Your task to perform on an android device: toggle pop-ups in chrome Image 0: 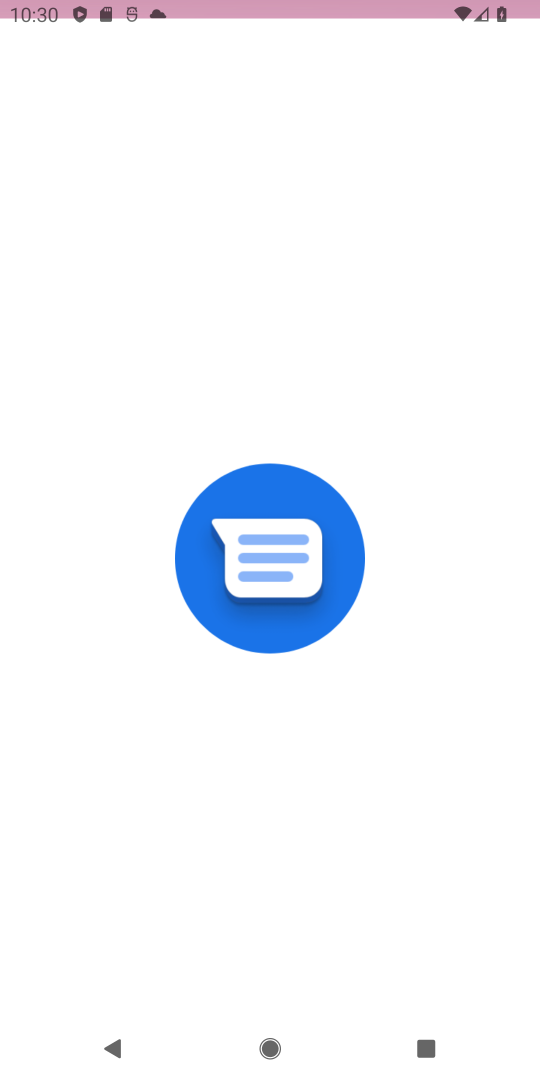
Step 0: press home button
Your task to perform on an android device: toggle pop-ups in chrome Image 1: 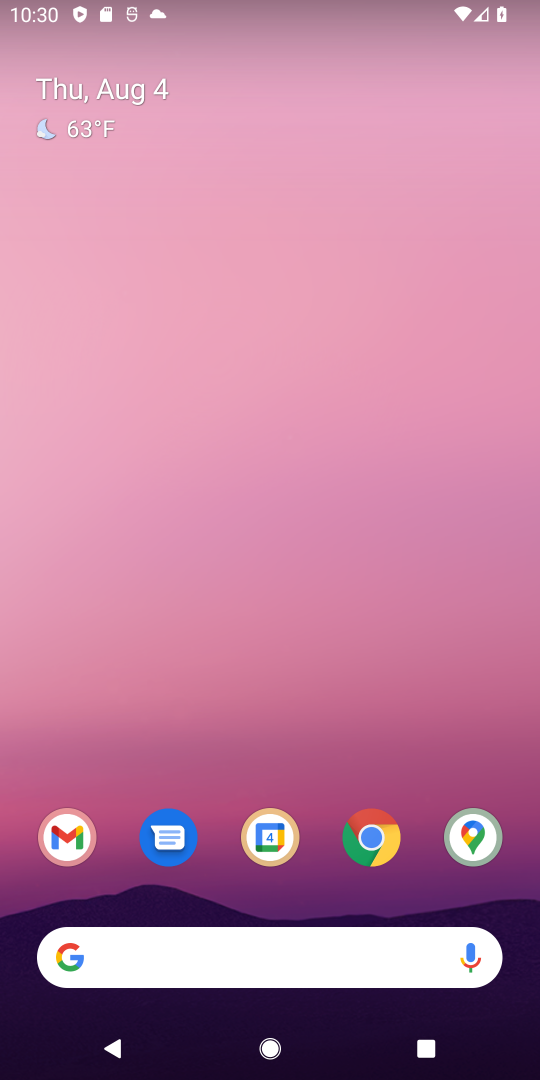
Step 1: drag from (314, 902) to (314, 97)
Your task to perform on an android device: toggle pop-ups in chrome Image 2: 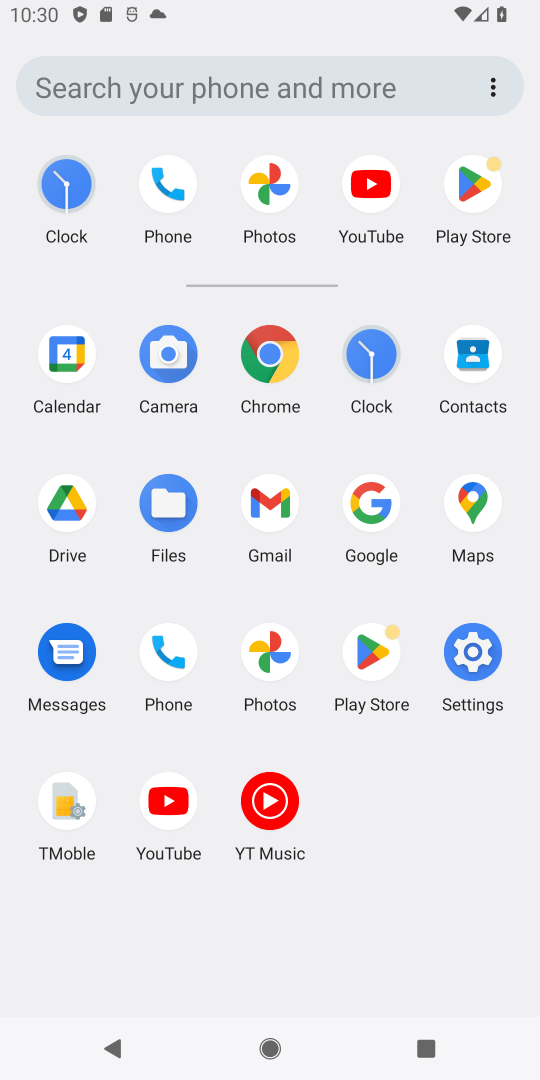
Step 2: click (270, 351)
Your task to perform on an android device: toggle pop-ups in chrome Image 3: 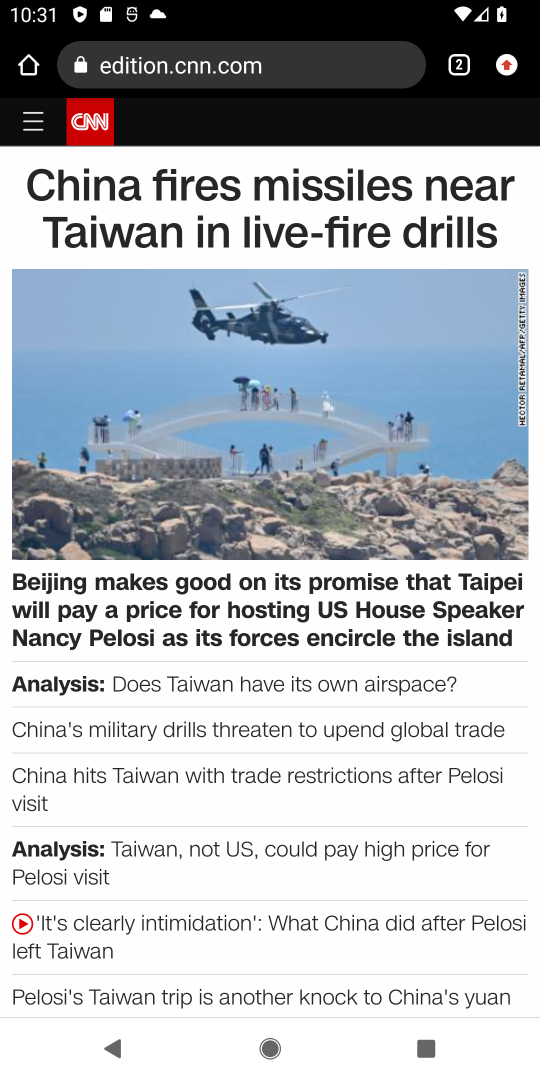
Step 3: click (503, 59)
Your task to perform on an android device: toggle pop-ups in chrome Image 4: 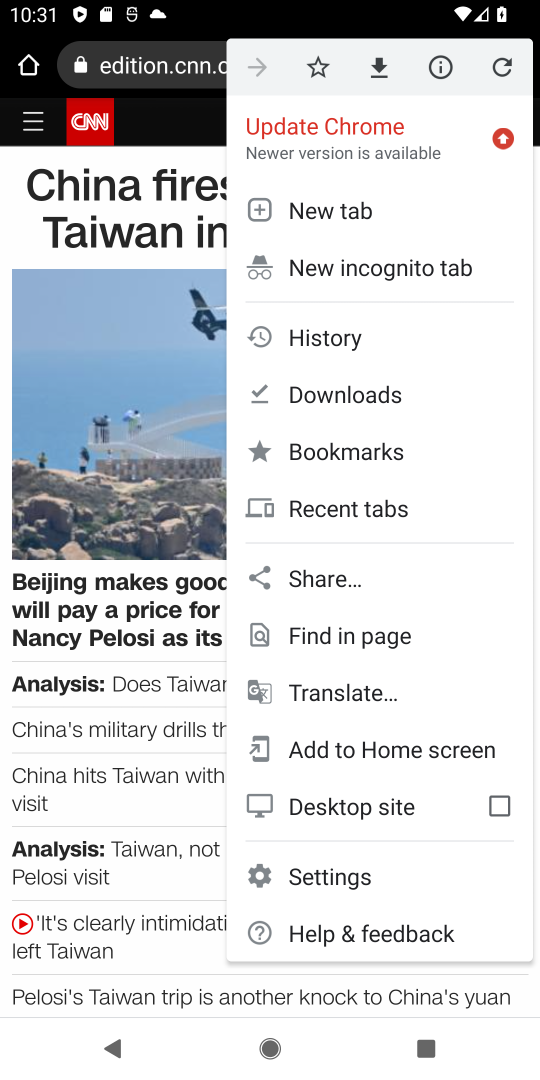
Step 4: click (381, 880)
Your task to perform on an android device: toggle pop-ups in chrome Image 5: 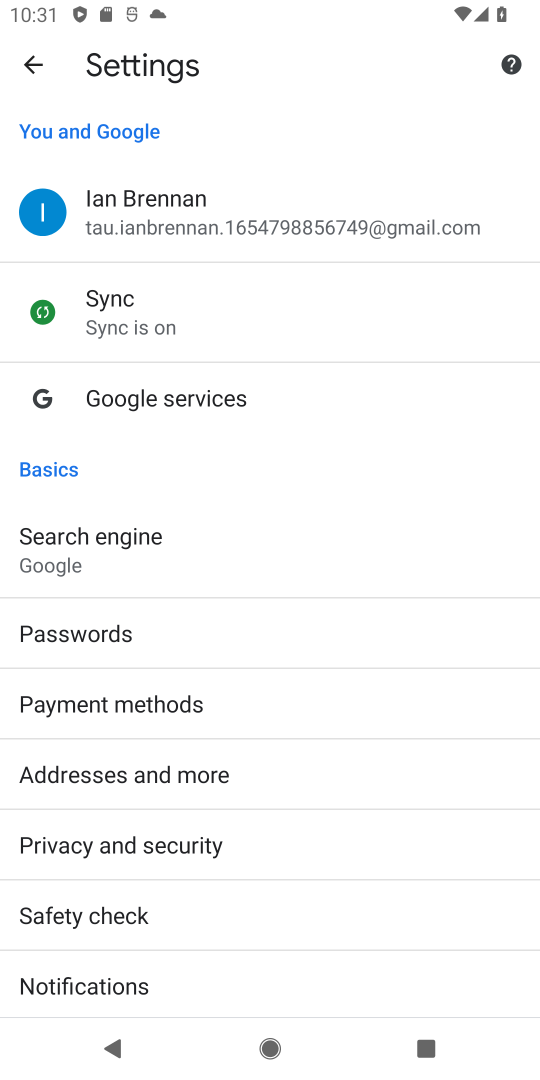
Step 5: drag from (218, 921) to (243, 388)
Your task to perform on an android device: toggle pop-ups in chrome Image 6: 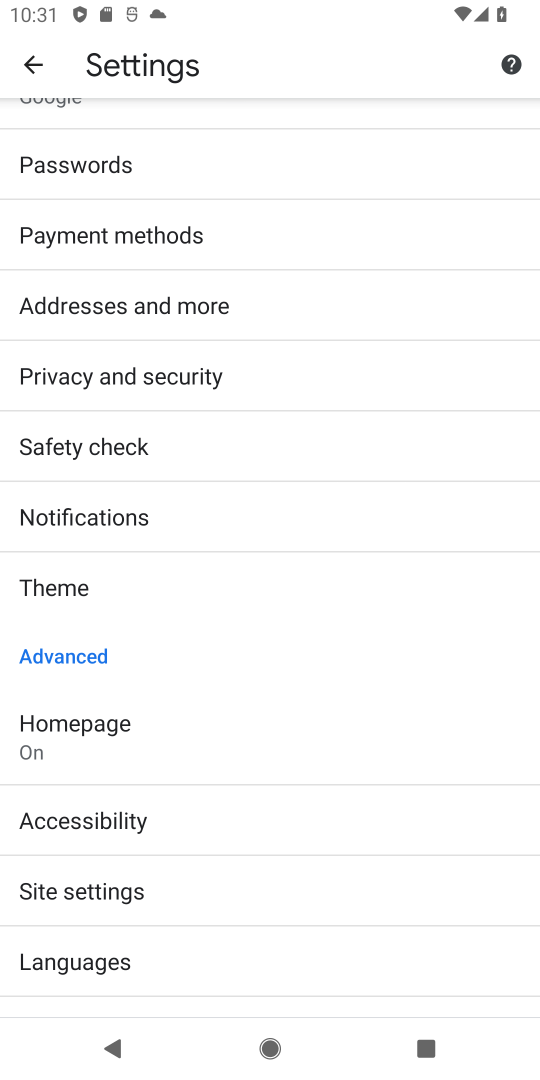
Step 6: click (159, 883)
Your task to perform on an android device: toggle pop-ups in chrome Image 7: 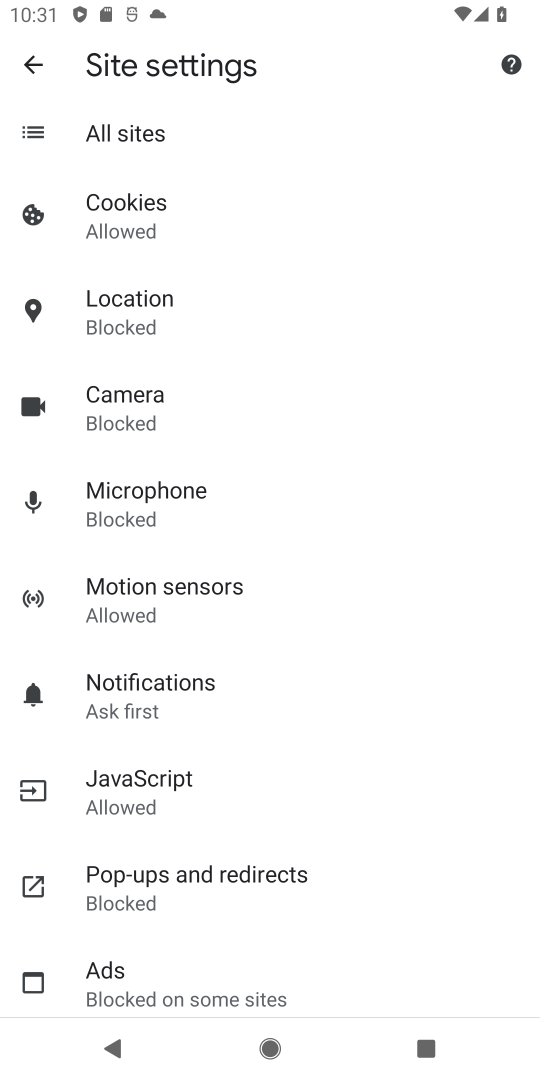
Step 7: click (194, 887)
Your task to perform on an android device: toggle pop-ups in chrome Image 8: 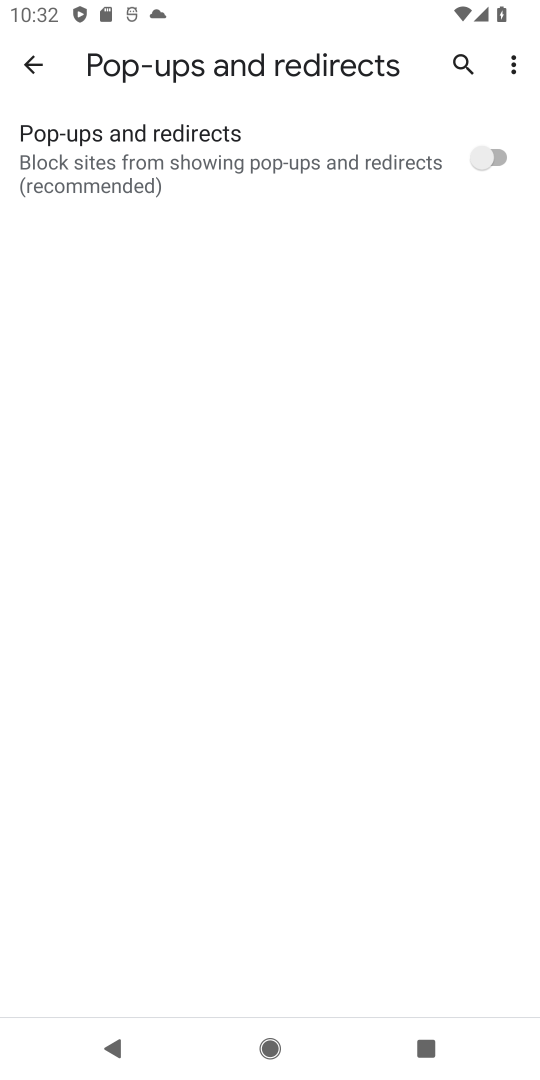
Step 8: click (477, 157)
Your task to perform on an android device: toggle pop-ups in chrome Image 9: 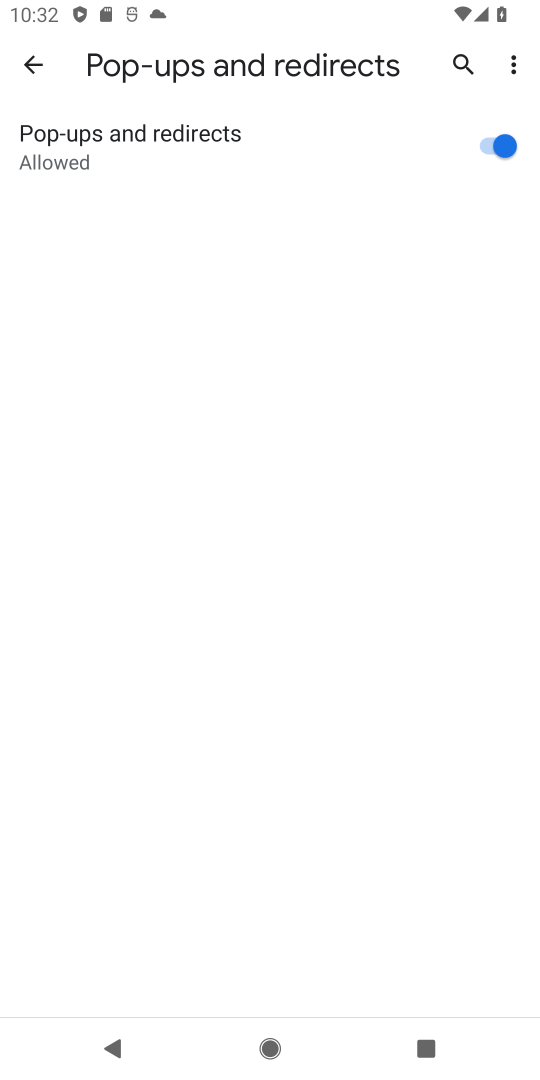
Step 9: task complete